Your task to perform on an android device: Open the calendar and show me this week's events? Image 0: 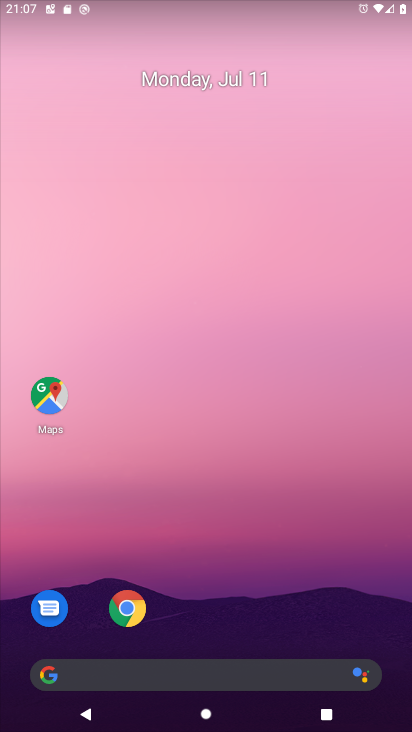
Step 0: drag from (265, 599) to (231, 257)
Your task to perform on an android device: Open the calendar and show me this week's events? Image 1: 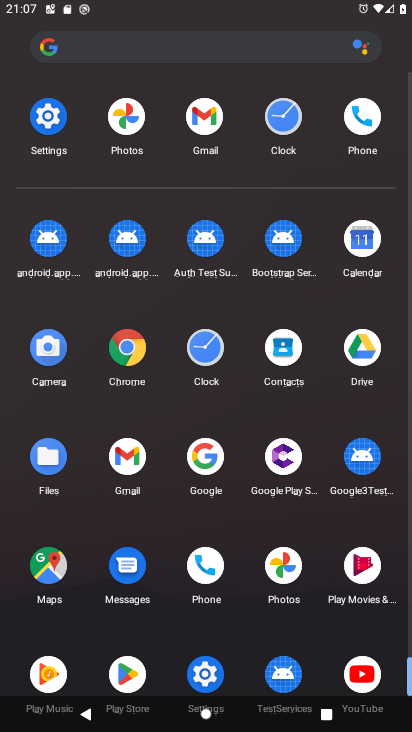
Step 1: click (365, 262)
Your task to perform on an android device: Open the calendar and show me this week's events? Image 2: 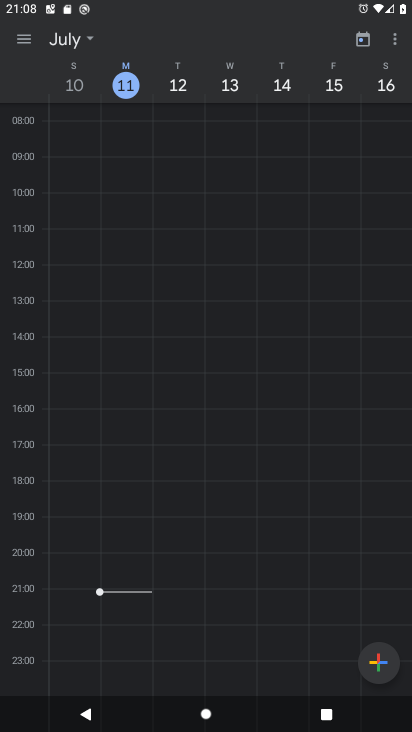
Step 2: click (26, 44)
Your task to perform on an android device: Open the calendar and show me this week's events? Image 3: 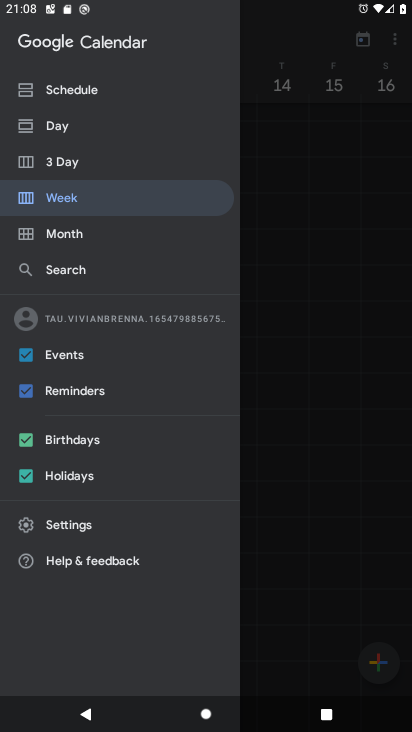
Step 3: click (98, 203)
Your task to perform on an android device: Open the calendar and show me this week's events? Image 4: 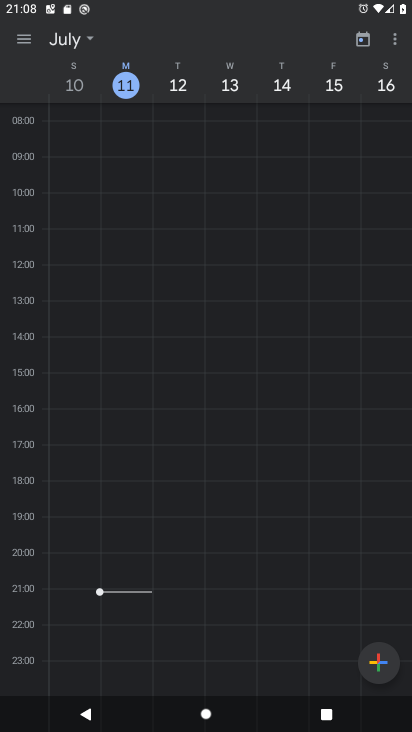
Step 4: task complete